Your task to perform on an android device: What is the recent news? Image 0: 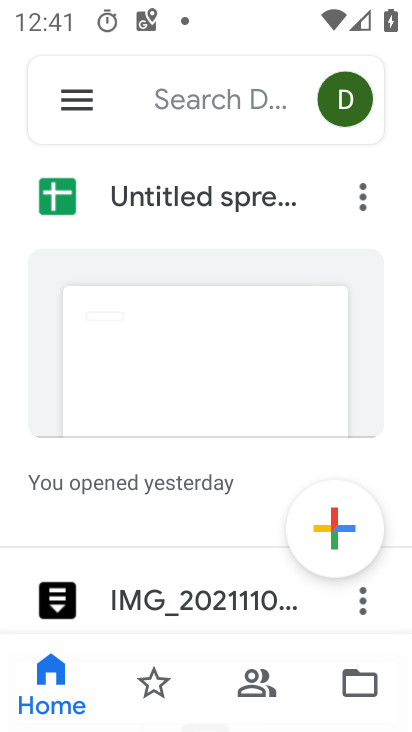
Step 0: press home button
Your task to perform on an android device: What is the recent news? Image 1: 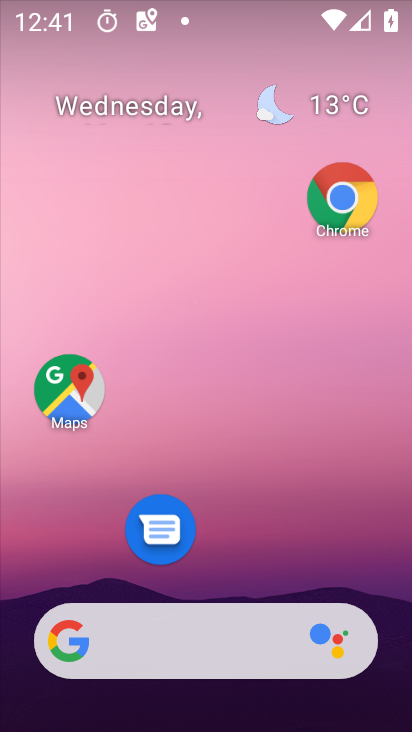
Step 1: click (171, 637)
Your task to perform on an android device: What is the recent news? Image 2: 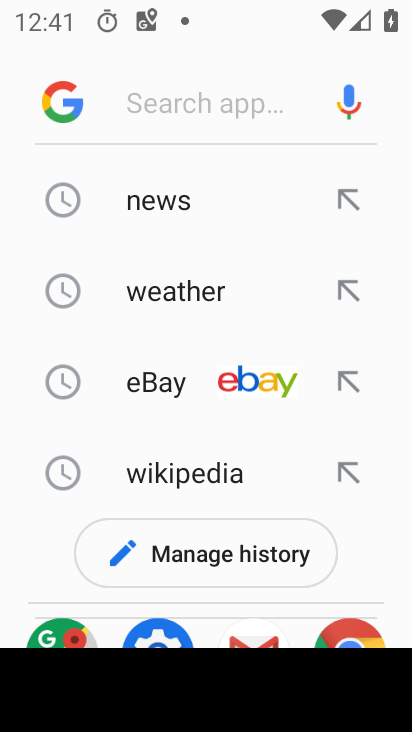
Step 2: click (188, 225)
Your task to perform on an android device: What is the recent news? Image 3: 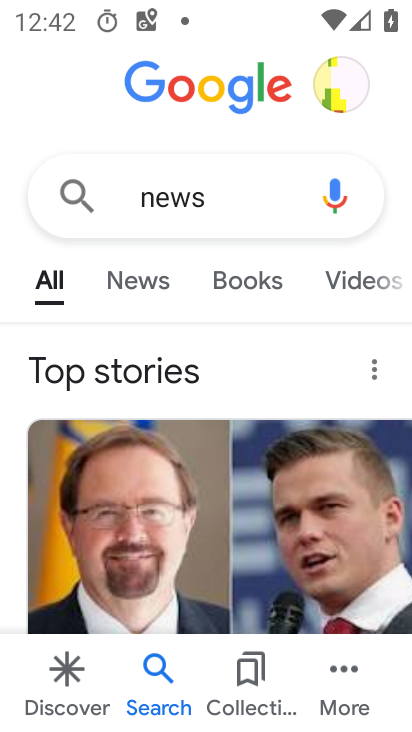
Step 3: click (159, 288)
Your task to perform on an android device: What is the recent news? Image 4: 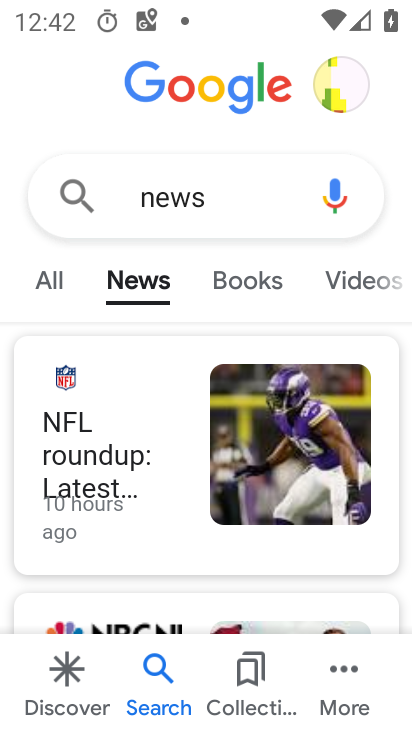
Step 4: task complete